Your task to perform on an android device: Open Amazon Image 0: 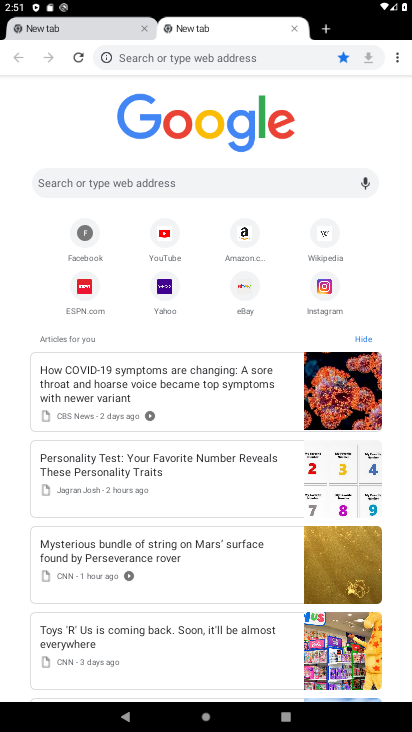
Step 0: click (290, 57)
Your task to perform on an android device: Open Amazon Image 1: 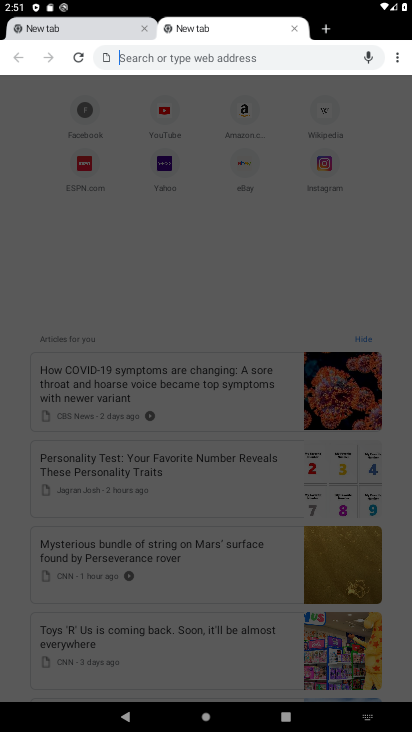
Step 1: type "Amazon"
Your task to perform on an android device: Open Amazon Image 2: 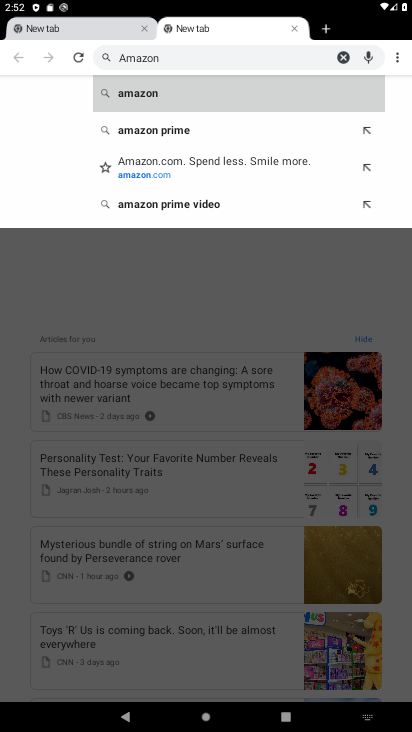
Step 2: click (134, 94)
Your task to perform on an android device: Open Amazon Image 3: 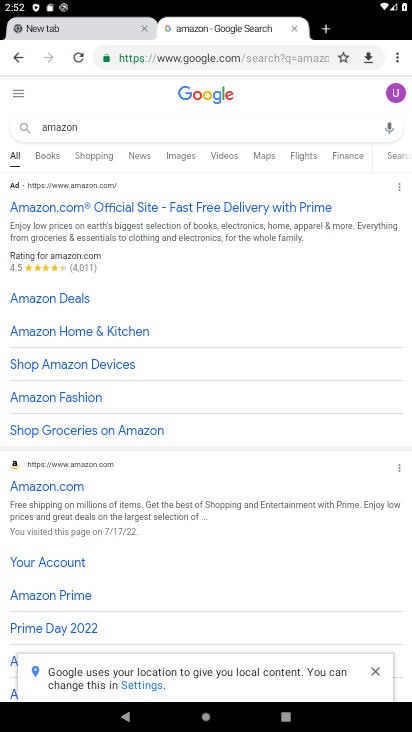
Step 3: task complete